Your task to perform on an android device: Go to display settings Image 0: 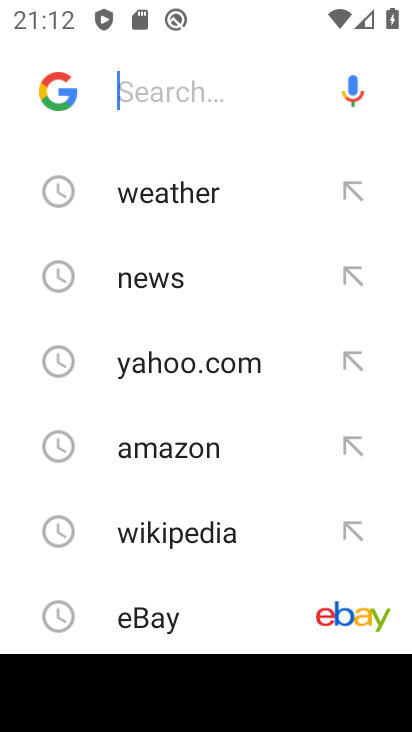
Step 0: press back button
Your task to perform on an android device: Go to display settings Image 1: 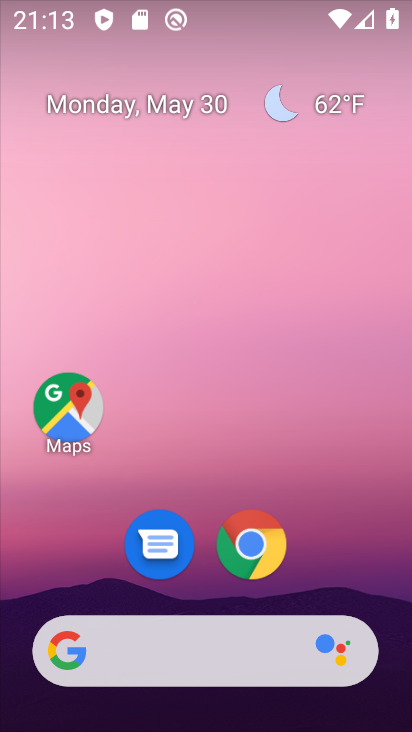
Step 1: drag from (322, 573) to (291, 186)
Your task to perform on an android device: Go to display settings Image 2: 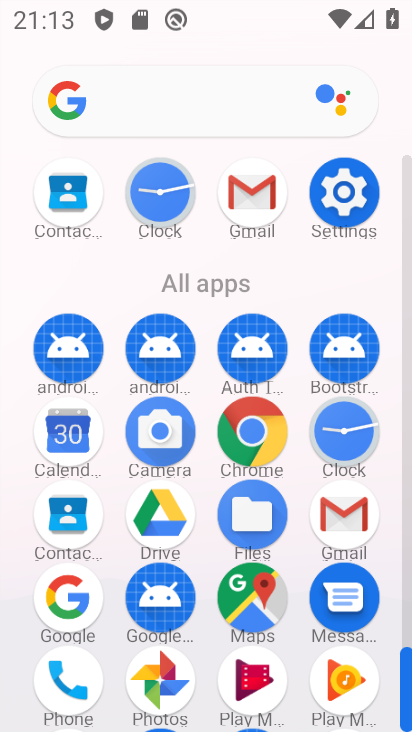
Step 2: click (342, 189)
Your task to perform on an android device: Go to display settings Image 3: 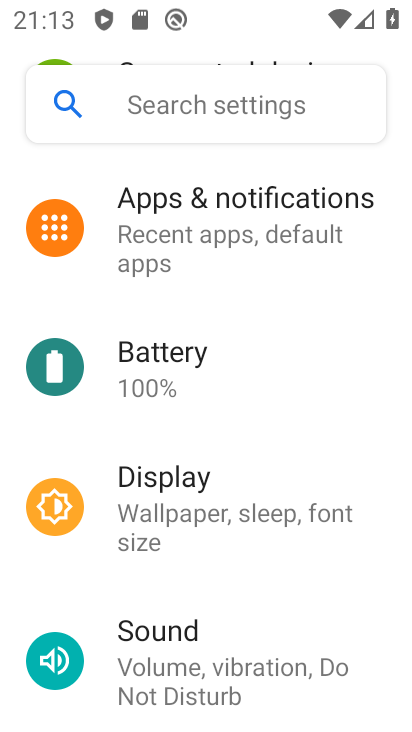
Step 3: click (222, 522)
Your task to perform on an android device: Go to display settings Image 4: 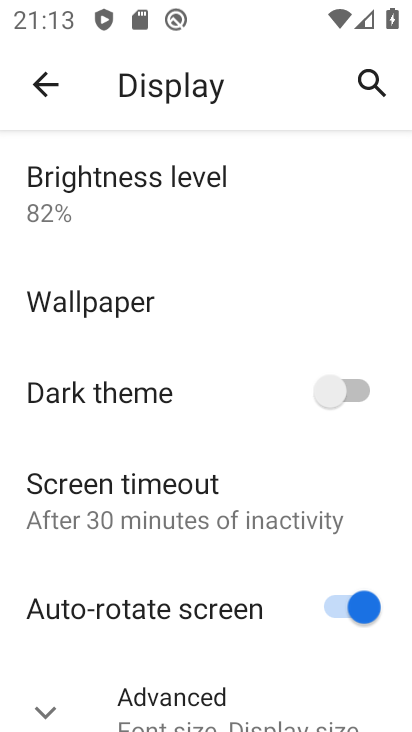
Step 4: task complete